Your task to perform on an android device: turn off priority inbox in the gmail app Image 0: 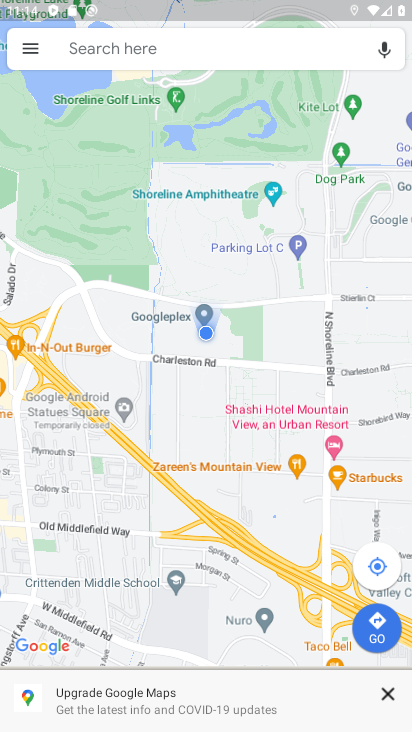
Step 0: press home button
Your task to perform on an android device: turn off priority inbox in the gmail app Image 1: 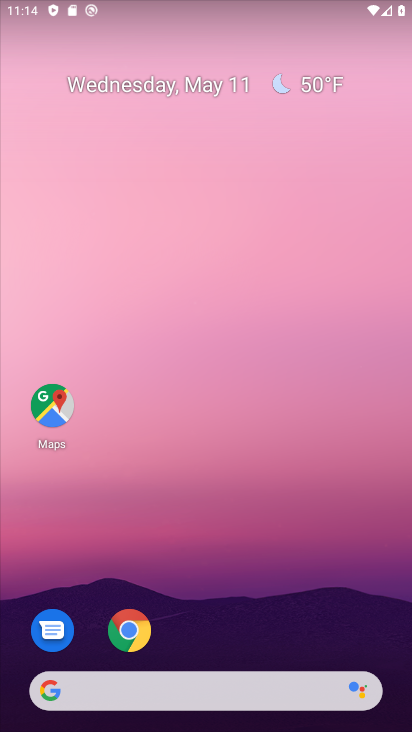
Step 1: drag from (91, 567) to (145, 234)
Your task to perform on an android device: turn off priority inbox in the gmail app Image 2: 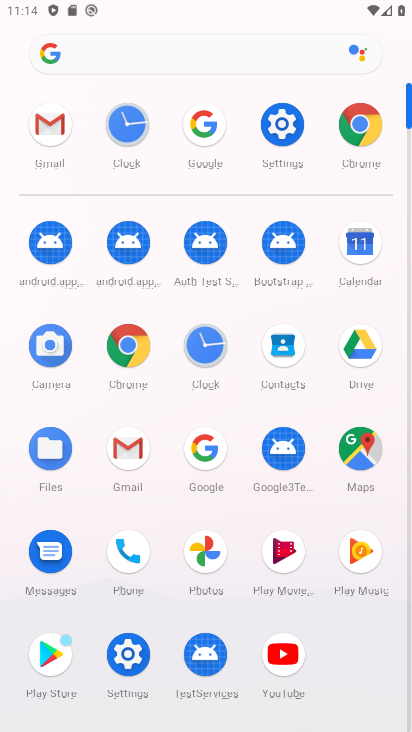
Step 2: click (126, 448)
Your task to perform on an android device: turn off priority inbox in the gmail app Image 3: 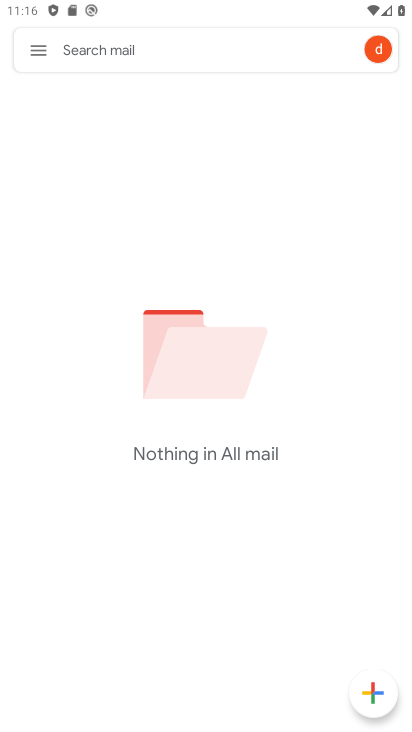
Step 3: click (42, 55)
Your task to perform on an android device: turn off priority inbox in the gmail app Image 4: 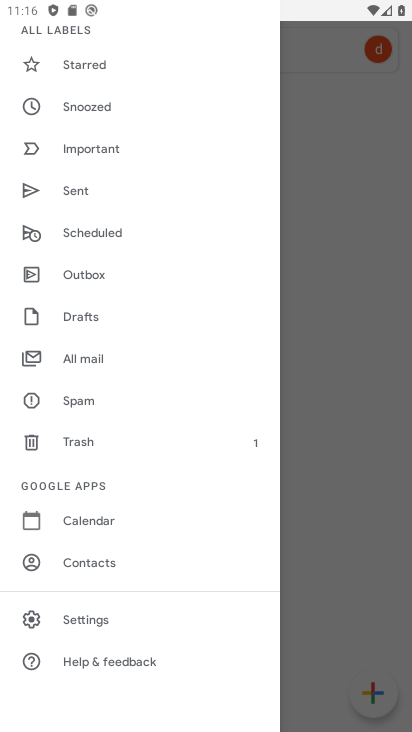
Step 4: click (92, 619)
Your task to perform on an android device: turn off priority inbox in the gmail app Image 5: 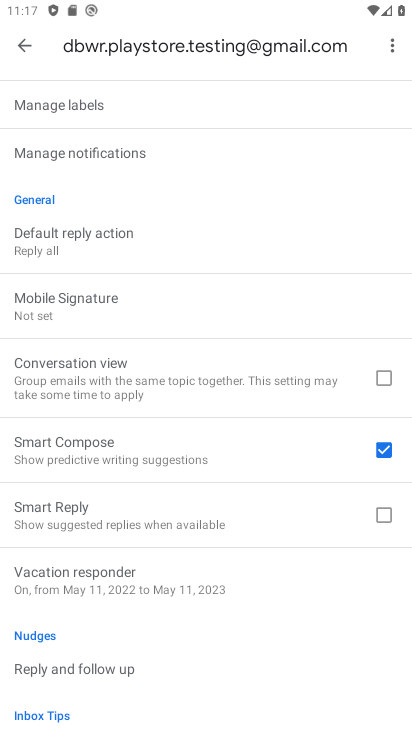
Step 5: drag from (91, 179) to (104, 552)
Your task to perform on an android device: turn off priority inbox in the gmail app Image 6: 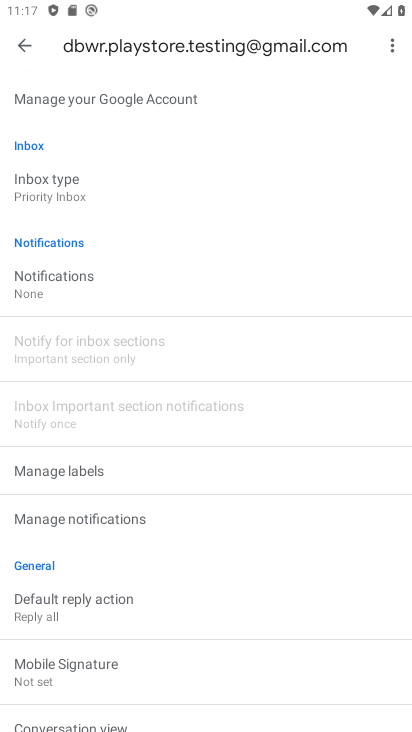
Step 6: click (73, 193)
Your task to perform on an android device: turn off priority inbox in the gmail app Image 7: 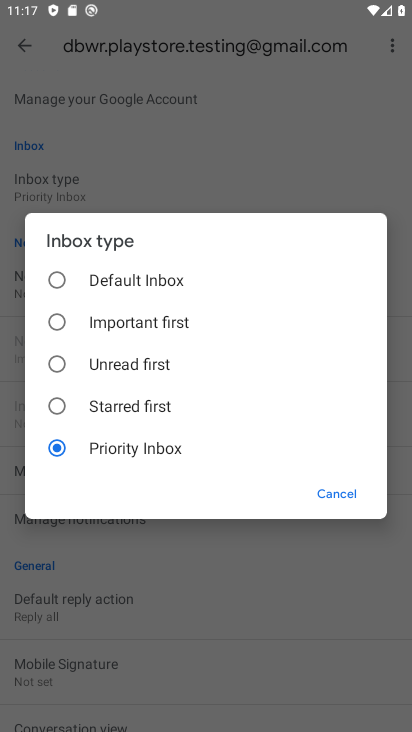
Step 7: task complete